Your task to perform on an android device: Search for Italian restaurants on Maps Image 0: 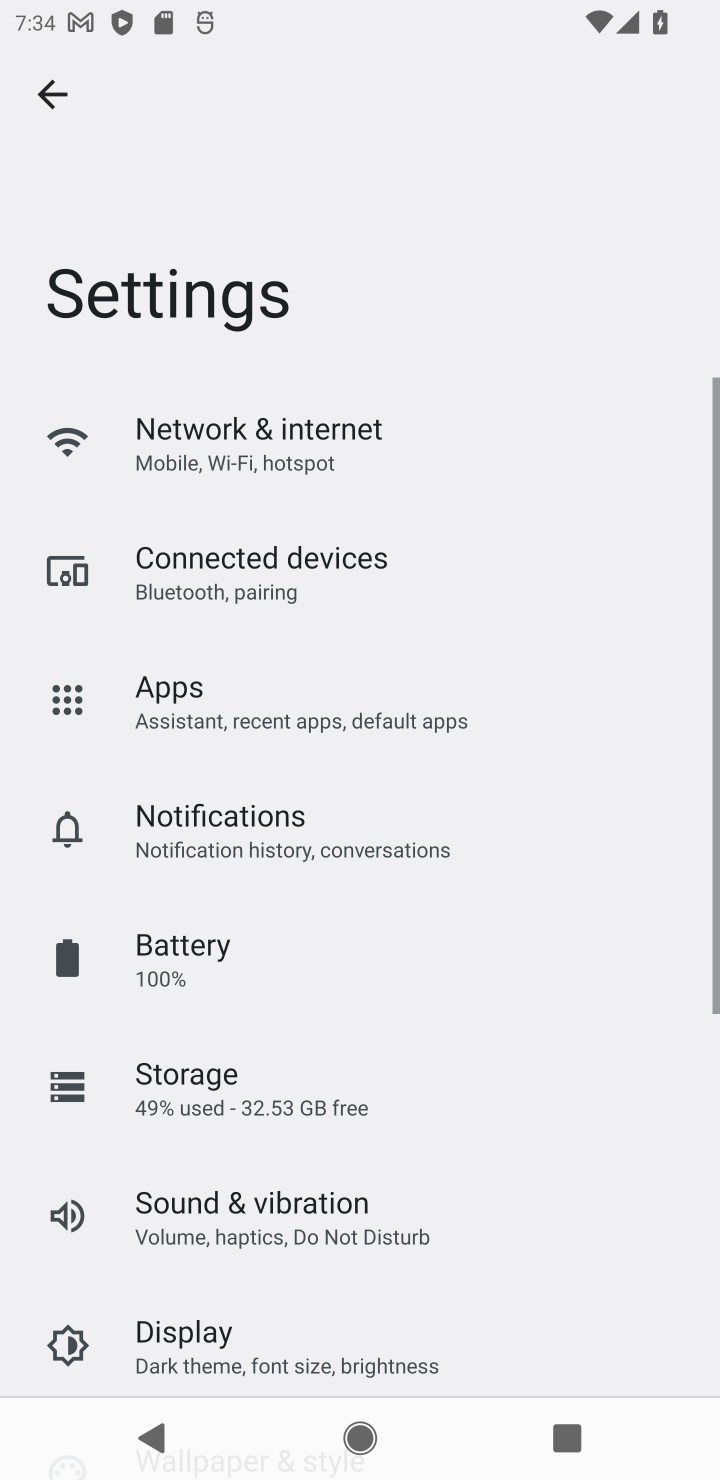
Step 0: press home button
Your task to perform on an android device: Search for Italian restaurants on Maps Image 1: 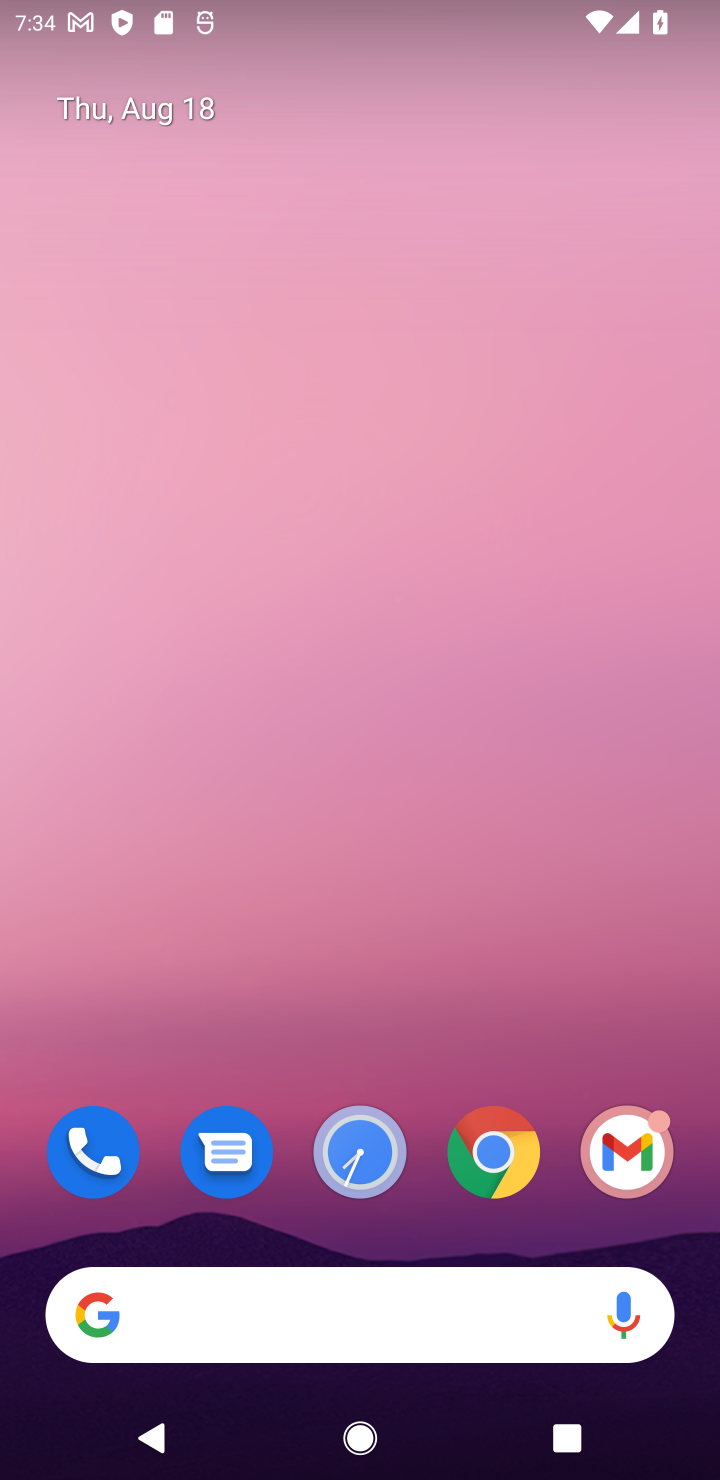
Step 1: drag from (446, 1237) to (478, 235)
Your task to perform on an android device: Search for Italian restaurants on Maps Image 2: 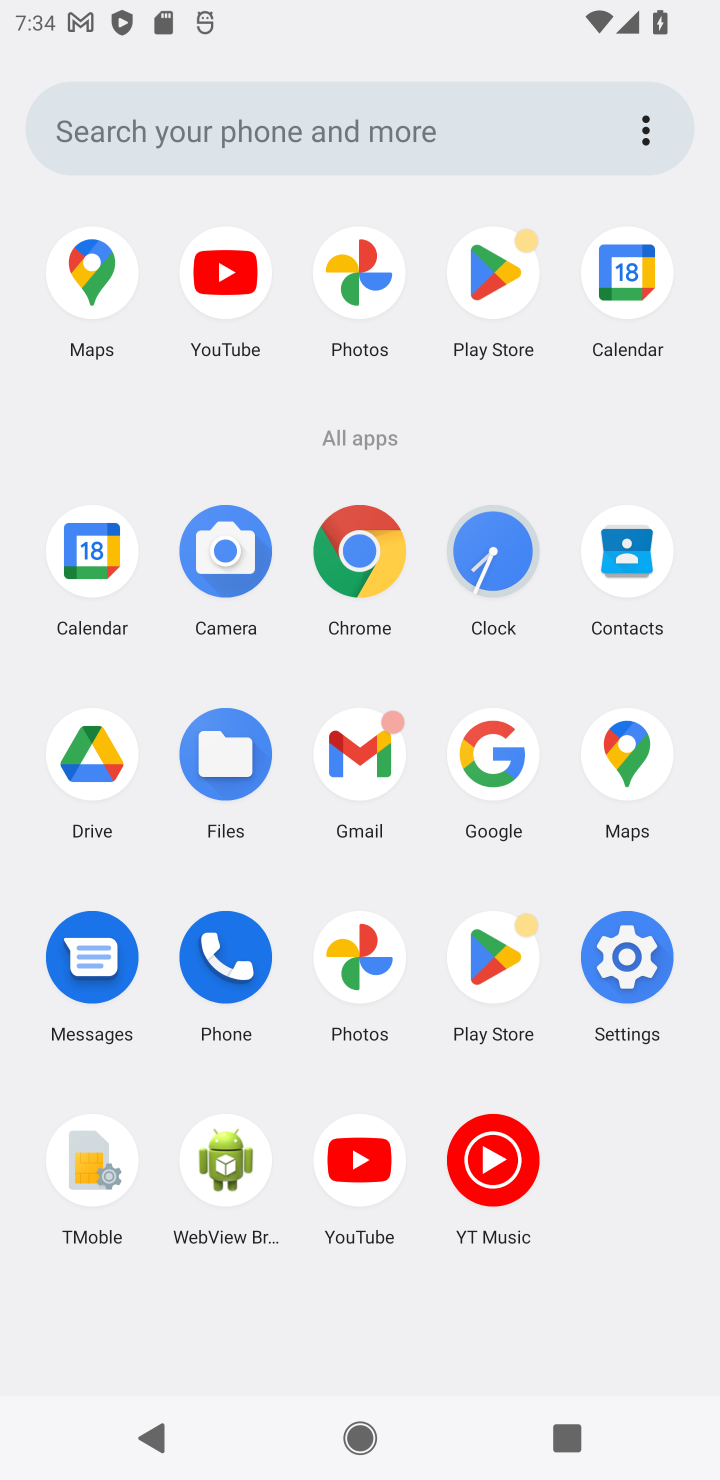
Step 2: click (81, 295)
Your task to perform on an android device: Search for Italian restaurants on Maps Image 3: 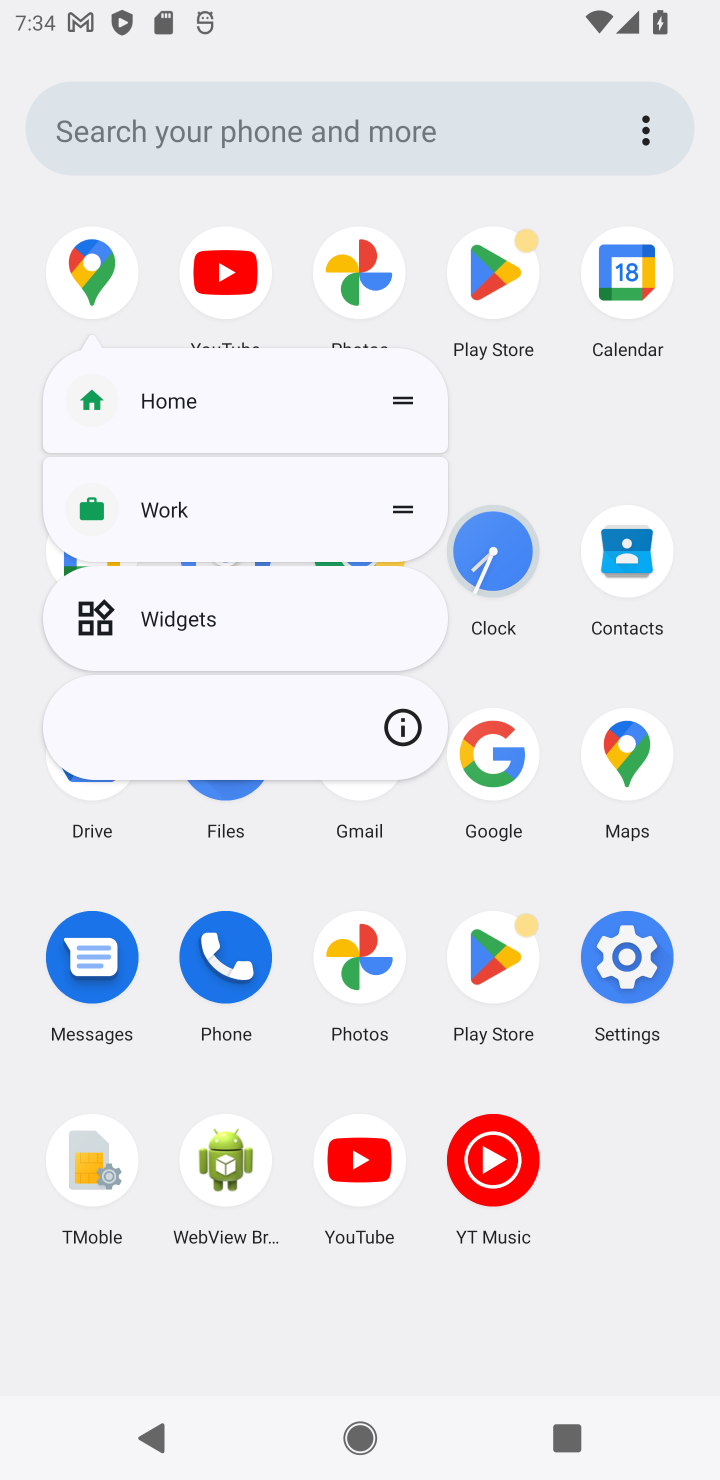
Step 3: click (93, 269)
Your task to perform on an android device: Search for Italian restaurants on Maps Image 4: 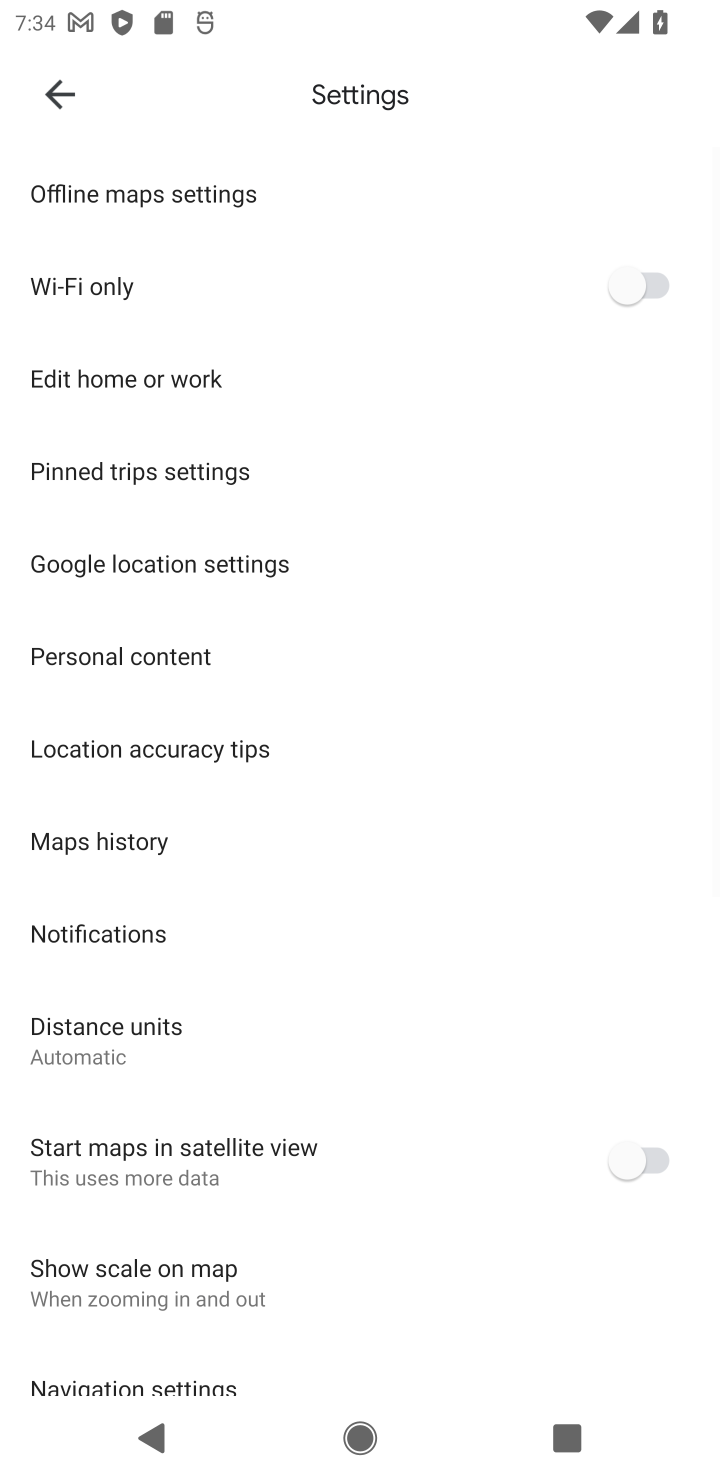
Step 4: press back button
Your task to perform on an android device: Search for Italian restaurants on Maps Image 5: 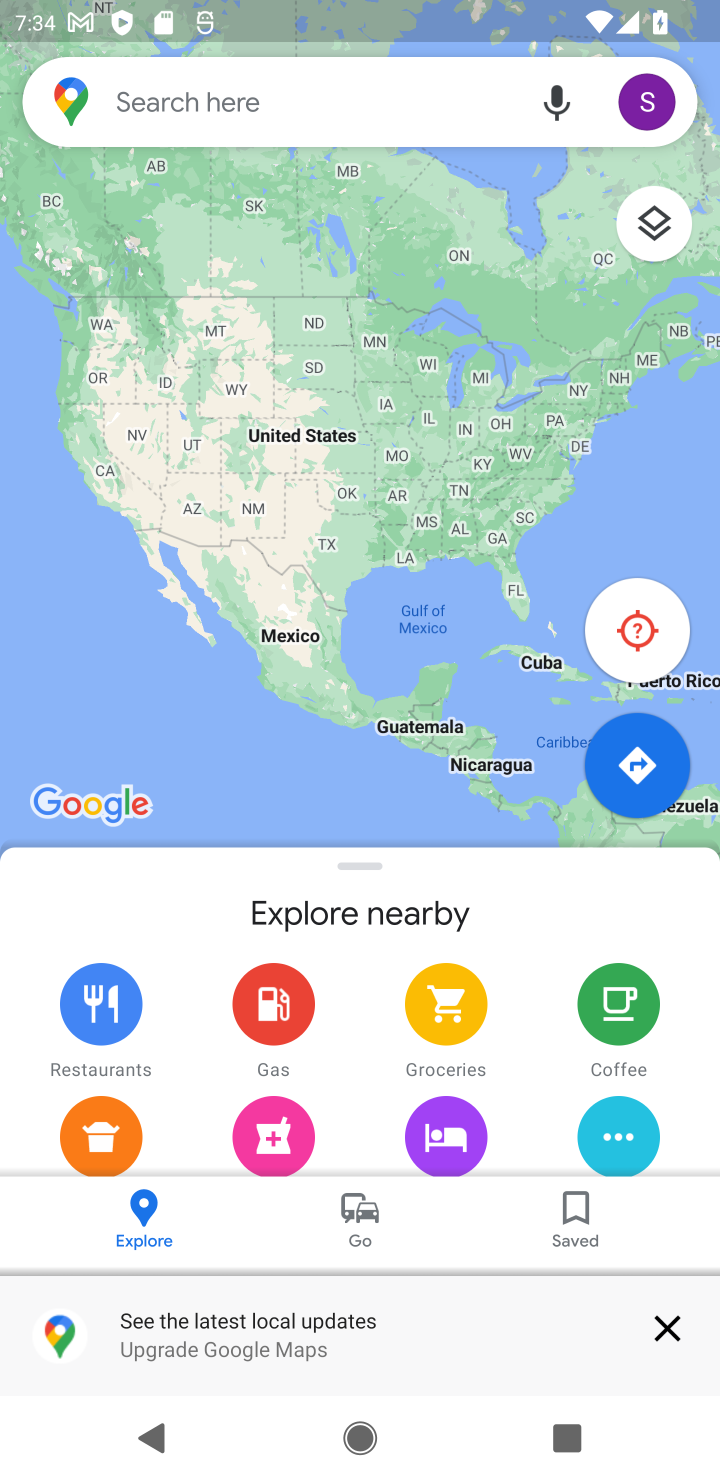
Step 5: click (244, 91)
Your task to perform on an android device: Search for Italian restaurants on Maps Image 6: 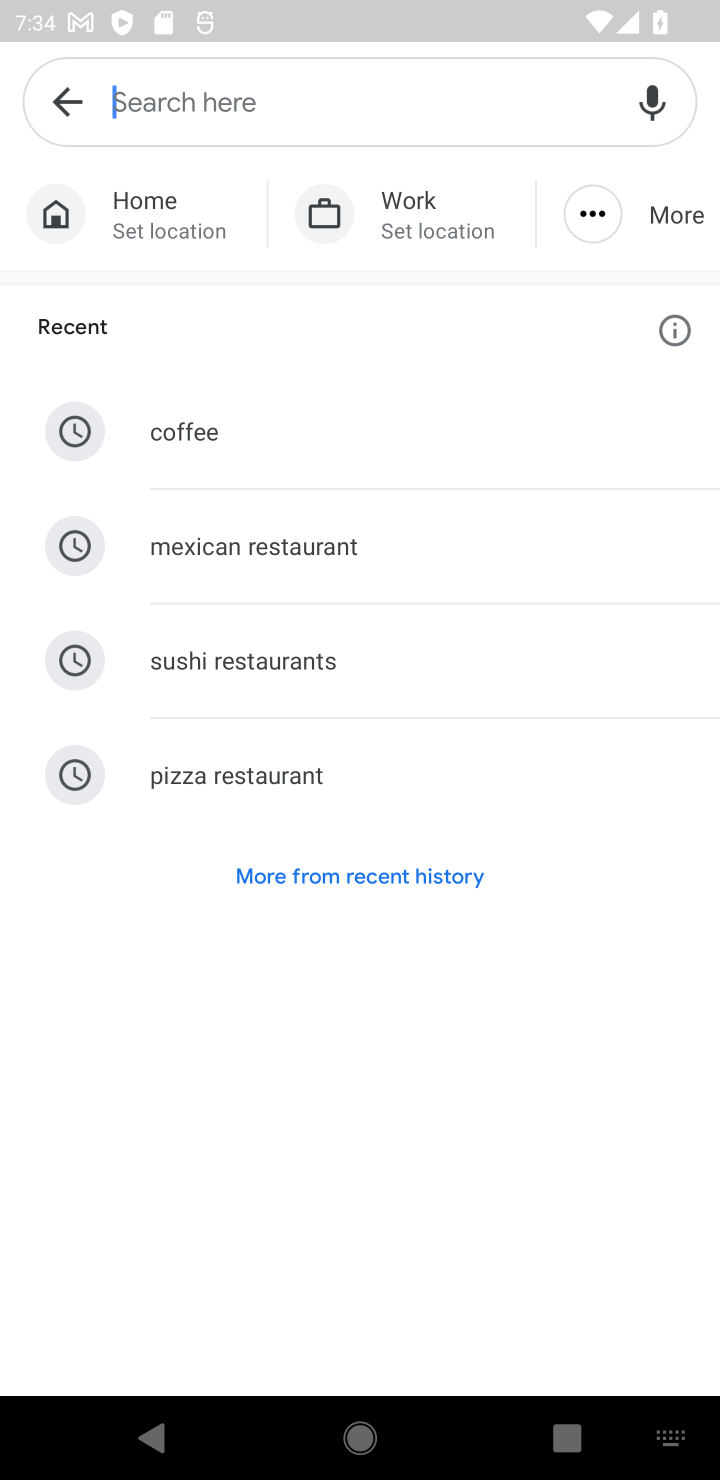
Step 6: click (238, 84)
Your task to perform on an android device: Search for Italian restaurants on Maps Image 7: 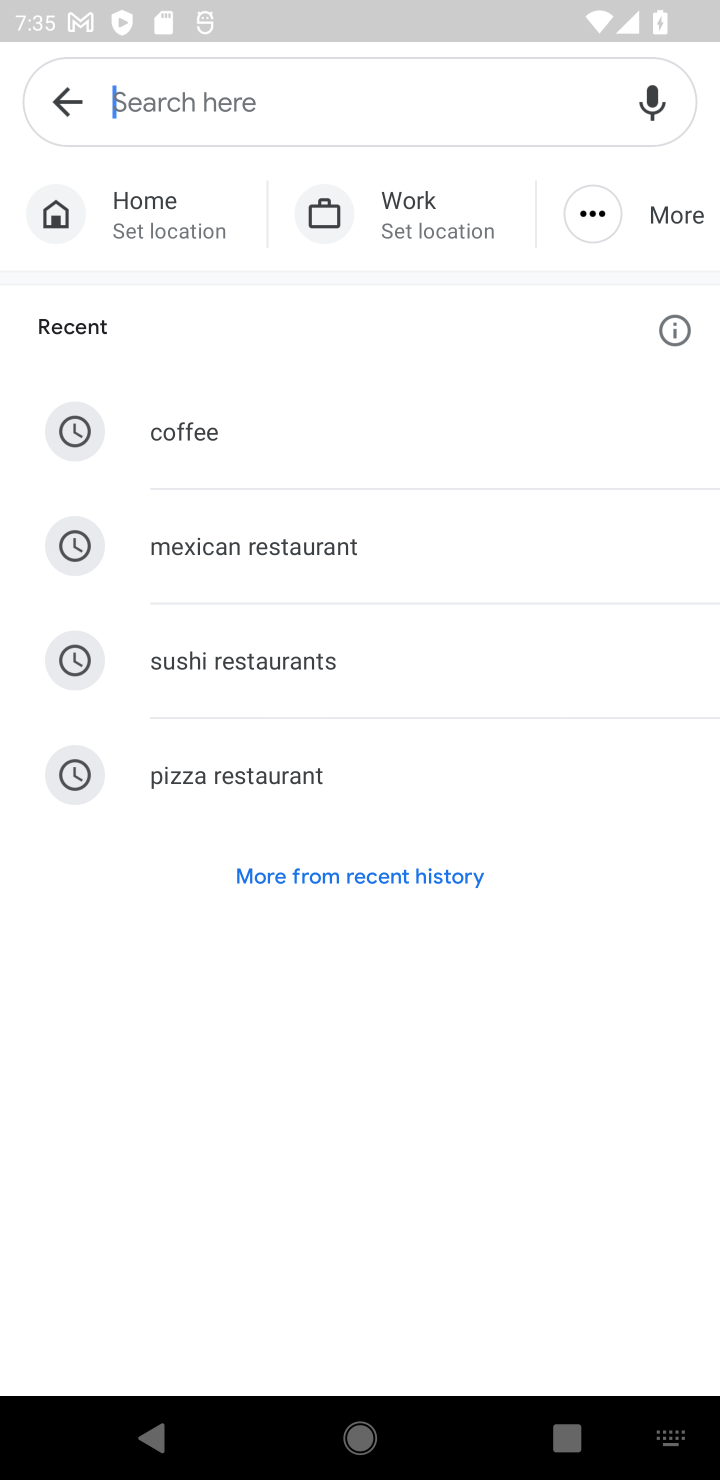
Step 7: type "Italian restaurants"
Your task to perform on an android device: Search for Italian restaurants on Maps Image 8: 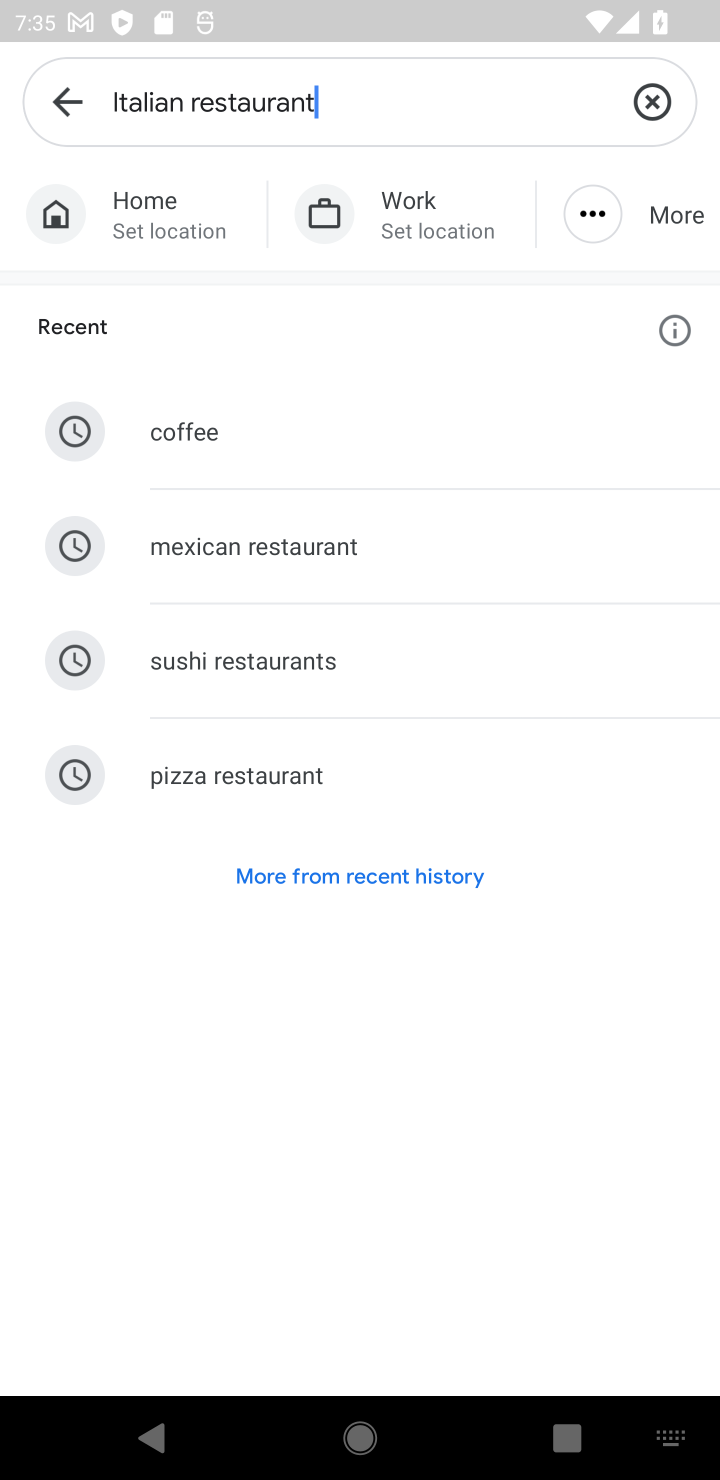
Step 8: press enter
Your task to perform on an android device: Search for Italian restaurants on Maps Image 9: 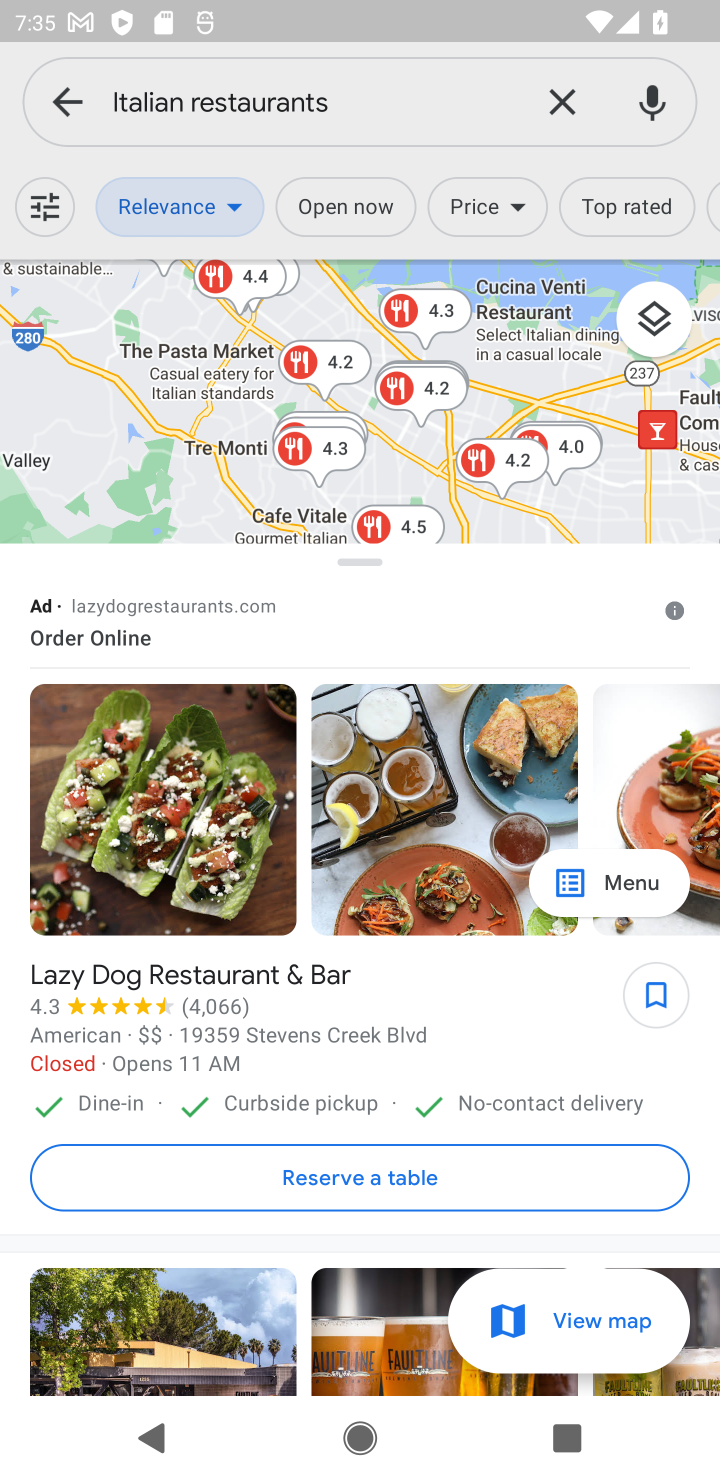
Step 9: task complete